Your task to perform on an android device: see creations saved in the google photos Image 0: 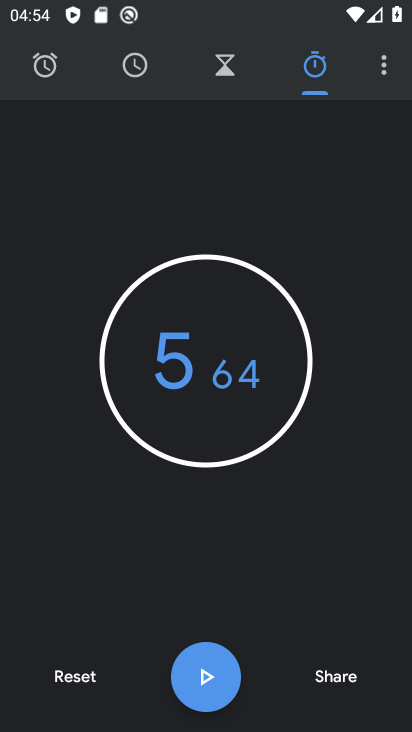
Step 0: press home button
Your task to perform on an android device: see creations saved in the google photos Image 1: 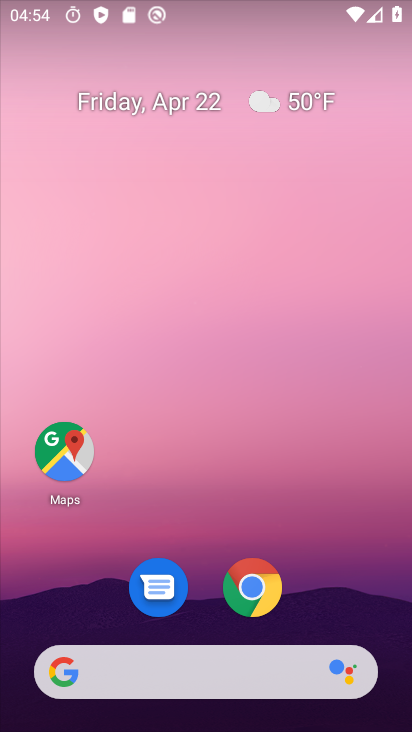
Step 1: drag from (355, 576) to (373, 1)
Your task to perform on an android device: see creations saved in the google photos Image 2: 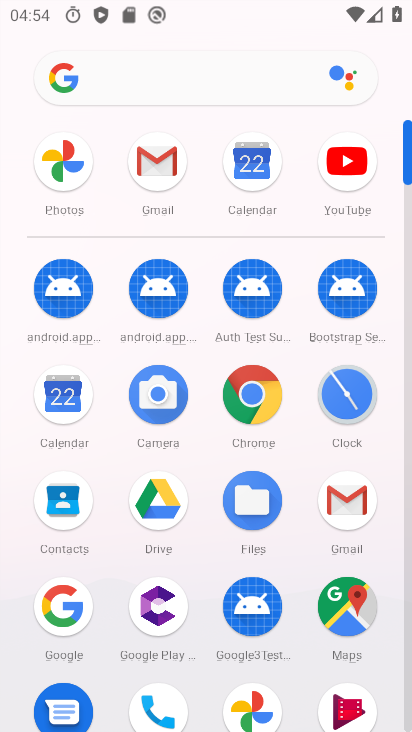
Step 2: click (64, 162)
Your task to perform on an android device: see creations saved in the google photos Image 3: 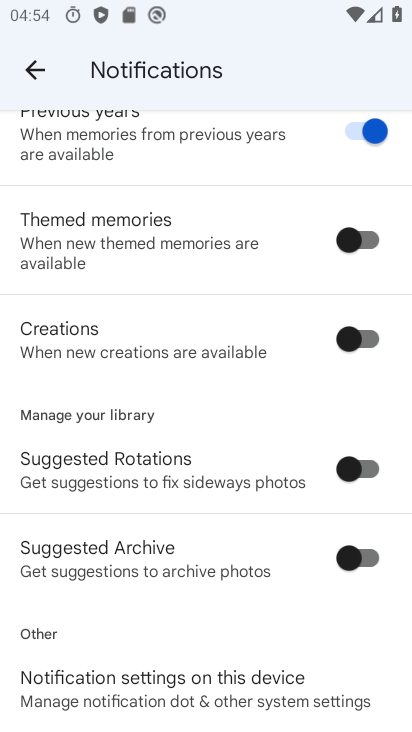
Step 3: click (28, 70)
Your task to perform on an android device: see creations saved in the google photos Image 4: 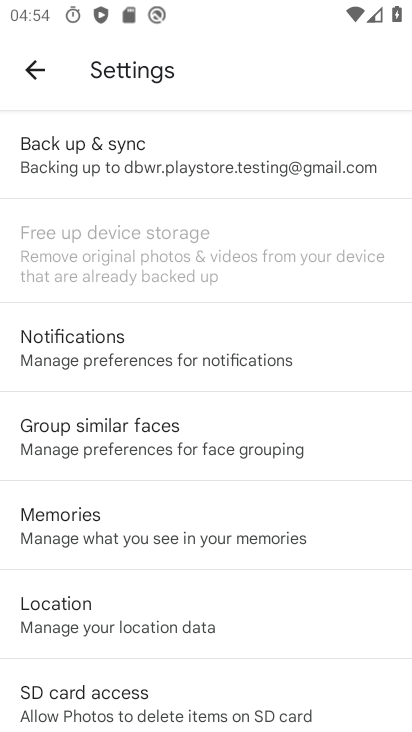
Step 4: click (37, 78)
Your task to perform on an android device: see creations saved in the google photos Image 5: 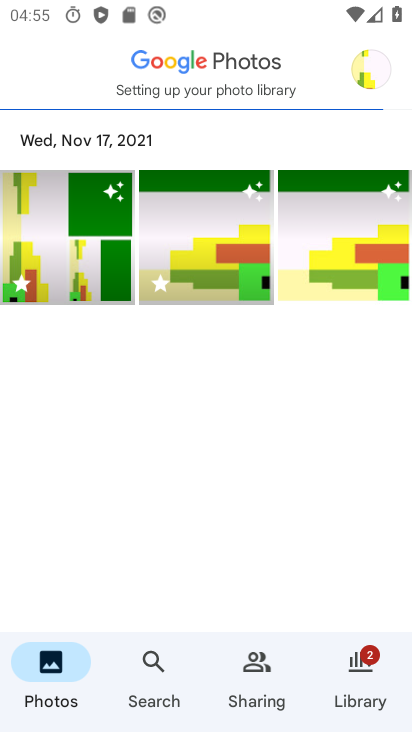
Step 5: click (359, 700)
Your task to perform on an android device: see creations saved in the google photos Image 6: 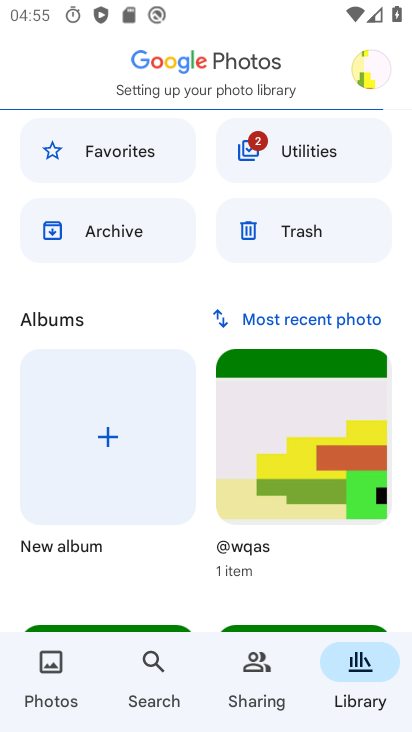
Step 6: click (298, 320)
Your task to perform on an android device: see creations saved in the google photos Image 7: 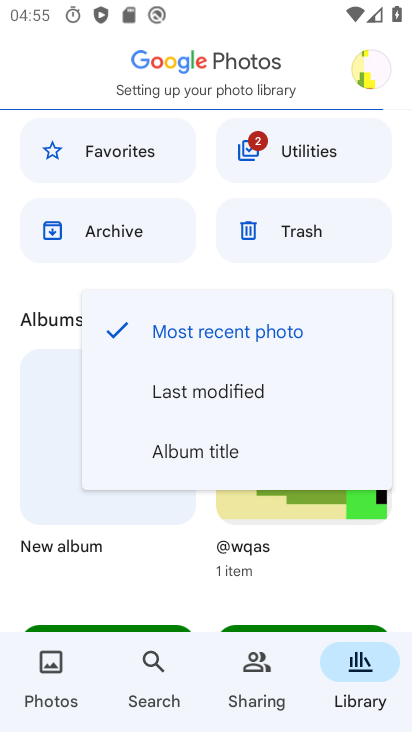
Step 7: click (393, 276)
Your task to perform on an android device: see creations saved in the google photos Image 8: 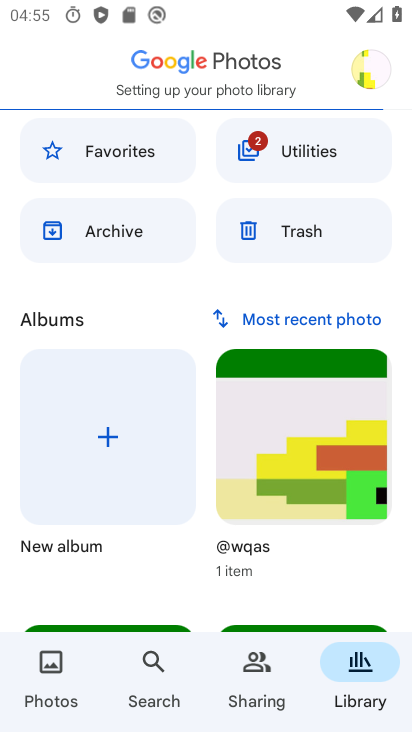
Step 8: drag from (202, 491) to (226, 169)
Your task to perform on an android device: see creations saved in the google photos Image 9: 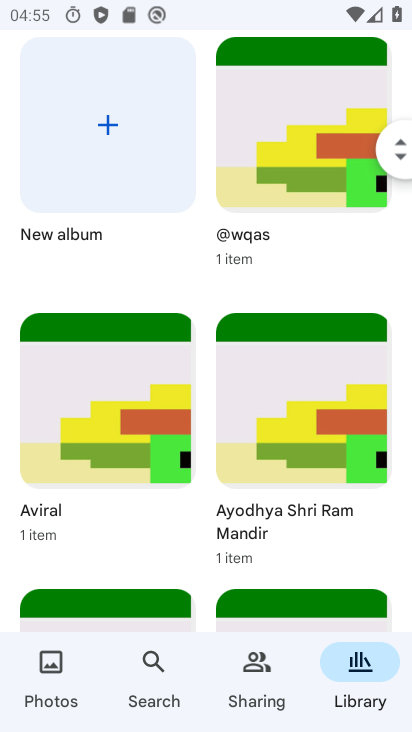
Step 9: drag from (196, 500) to (198, 214)
Your task to perform on an android device: see creations saved in the google photos Image 10: 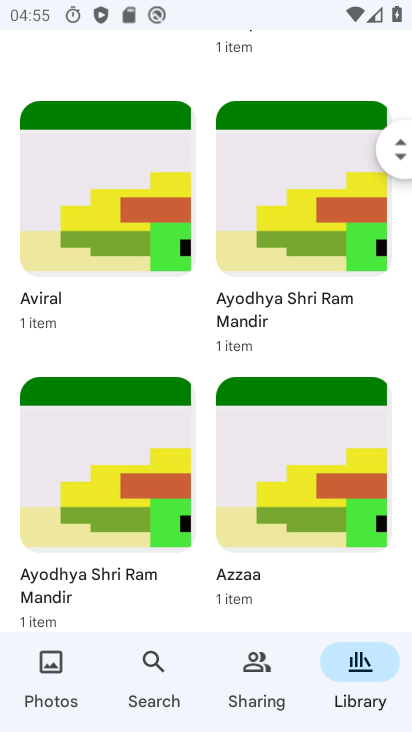
Step 10: drag from (217, 175) to (216, 536)
Your task to perform on an android device: see creations saved in the google photos Image 11: 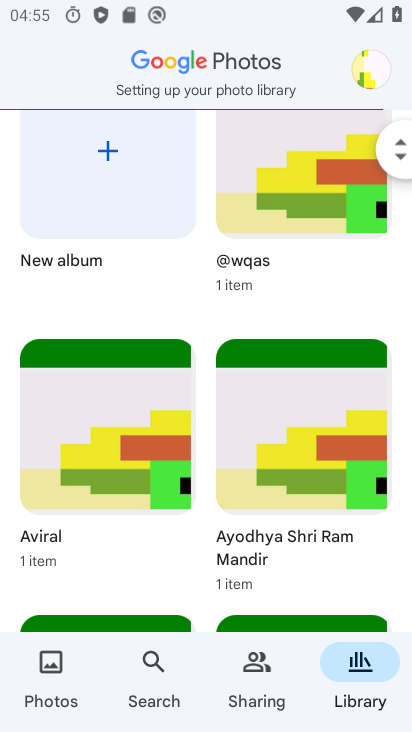
Step 11: click (372, 72)
Your task to perform on an android device: see creations saved in the google photos Image 12: 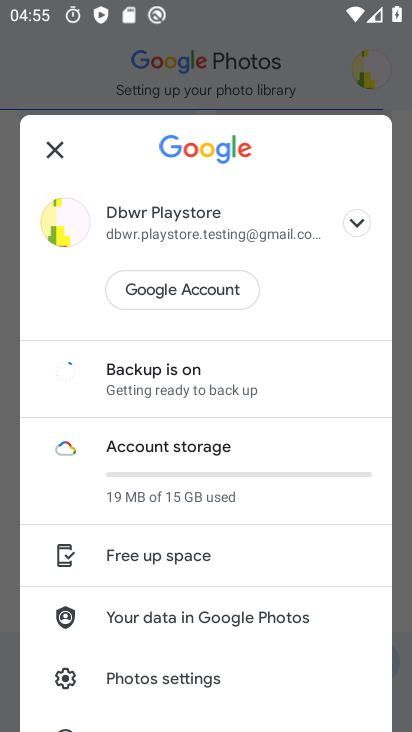
Step 12: task complete